Your task to perform on an android device: change the clock display to show seconds Image 0: 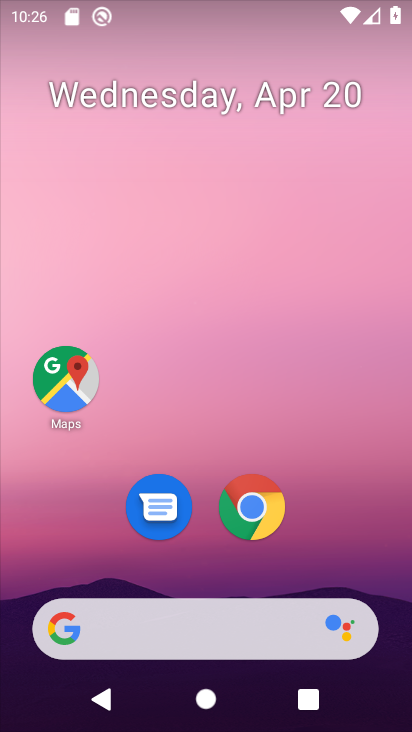
Step 0: drag from (185, 571) to (223, 40)
Your task to perform on an android device: change the clock display to show seconds Image 1: 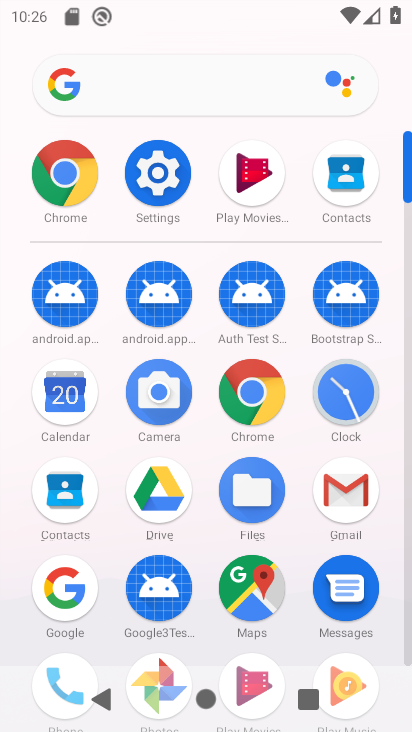
Step 1: click (348, 396)
Your task to perform on an android device: change the clock display to show seconds Image 2: 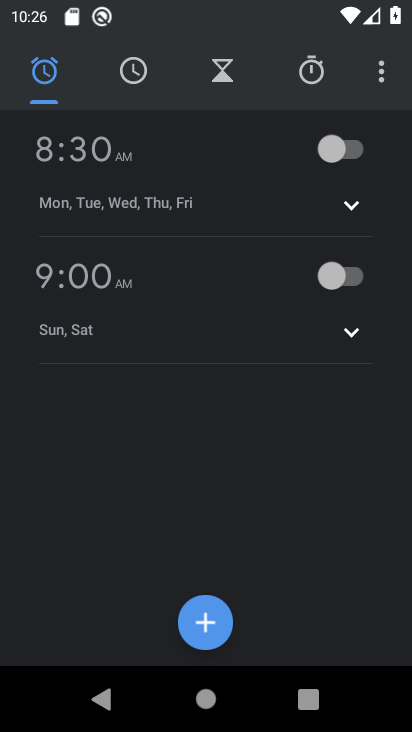
Step 2: click (384, 72)
Your task to perform on an android device: change the clock display to show seconds Image 3: 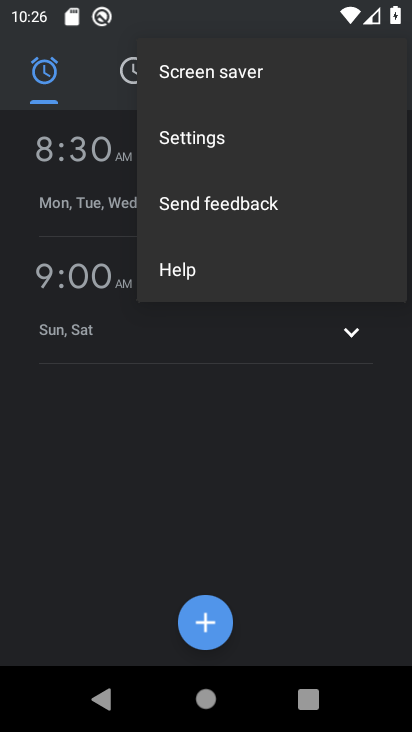
Step 3: click (215, 147)
Your task to perform on an android device: change the clock display to show seconds Image 4: 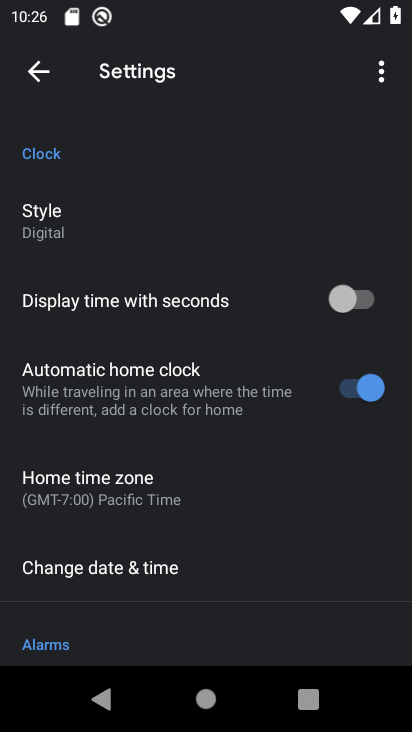
Step 4: click (349, 301)
Your task to perform on an android device: change the clock display to show seconds Image 5: 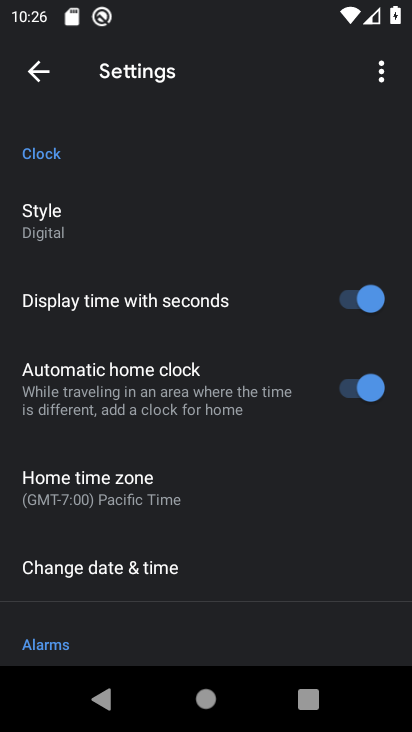
Step 5: task complete